Your task to perform on an android device: Is it going to rain tomorrow? Image 0: 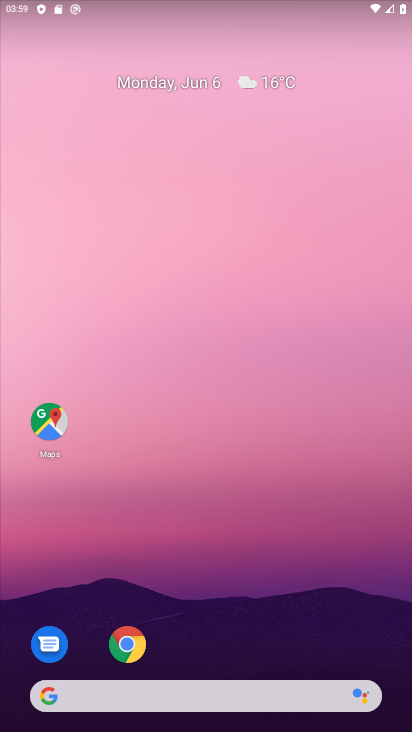
Step 0: click (270, 85)
Your task to perform on an android device: Is it going to rain tomorrow? Image 1: 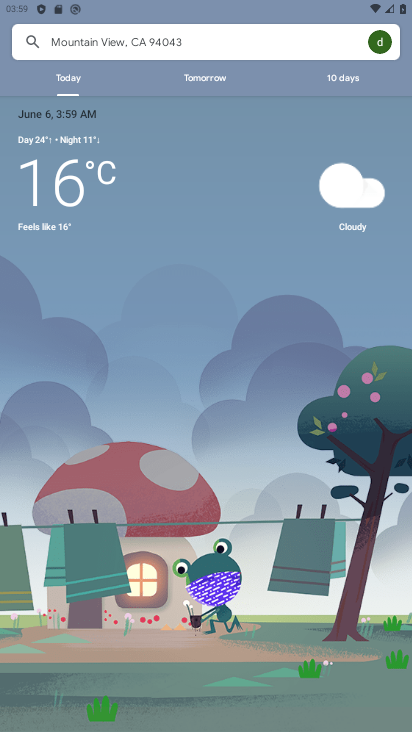
Step 1: click (204, 72)
Your task to perform on an android device: Is it going to rain tomorrow? Image 2: 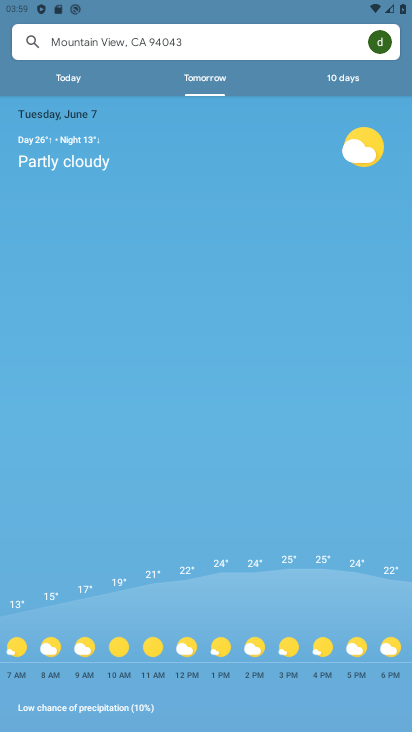
Step 2: task complete